Your task to perform on an android device: read, delete, or share a saved page in the chrome app Image 0: 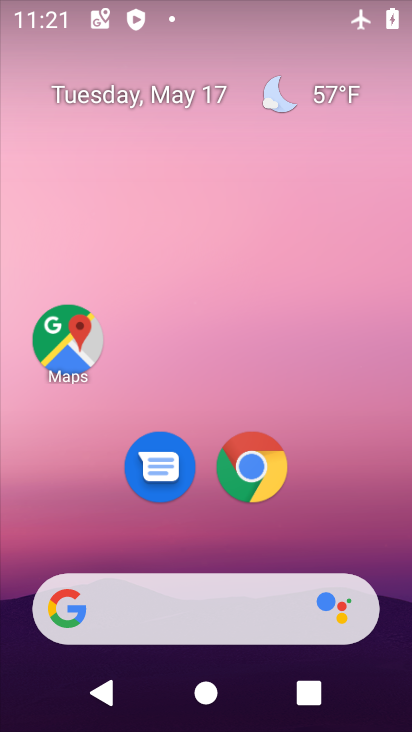
Step 0: press home button
Your task to perform on an android device: read, delete, or share a saved page in the chrome app Image 1: 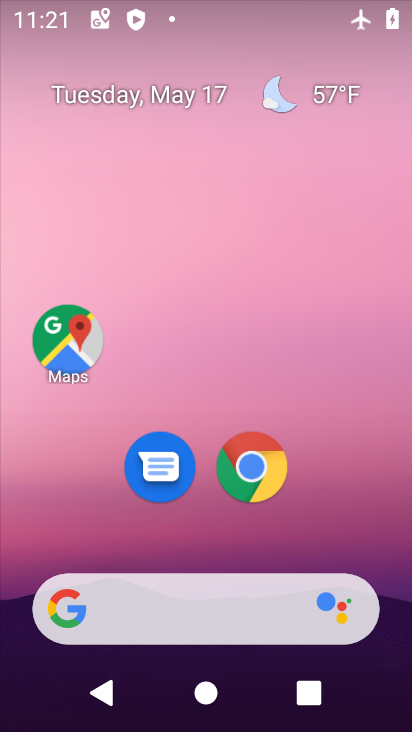
Step 1: drag from (259, 654) to (350, 173)
Your task to perform on an android device: read, delete, or share a saved page in the chrome app Image 2: 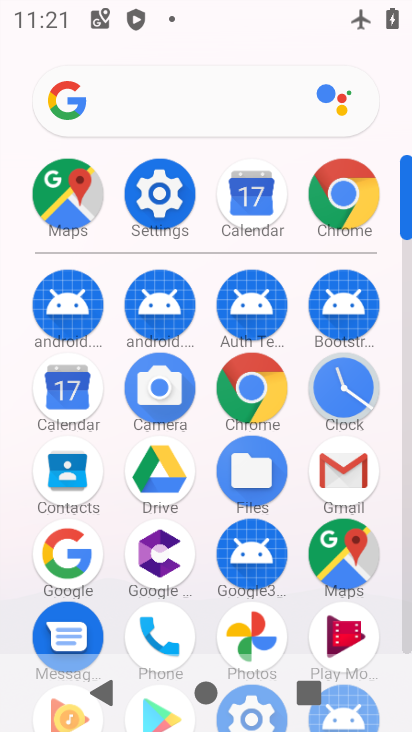
Step 2: click (365, 212)
Your task to perform on an android device: read, delete, or share a saved page in the chrome app Image 3: 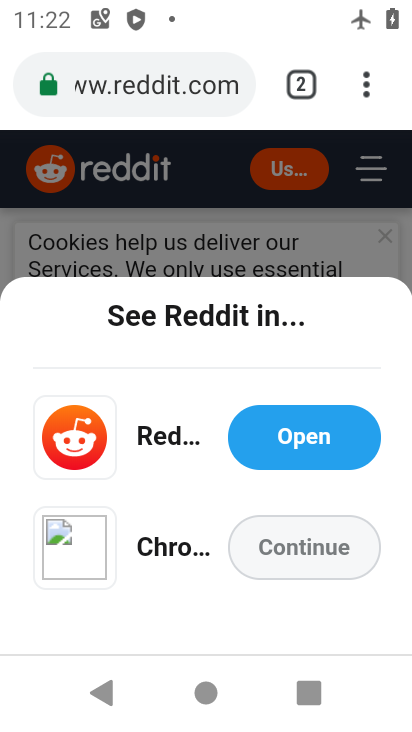
Step 3: click (240, 255)
Your task to perform on an android device: read, delete, or share a saved page in the chrome app Image 4: 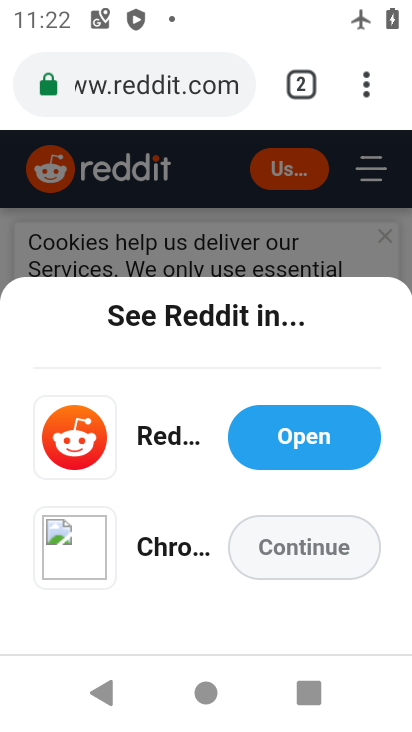
Step 4: click (355, 110)
Your task to perform on an android device: read, delete, or share a saved page in the chrome app Image 5: 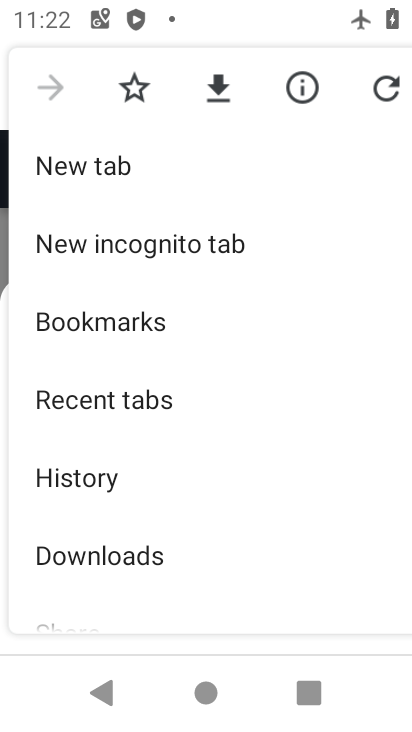
Step 5: drag from (171, 465) to (258, 185)
Your task to perform on an android device: read, delete, or share a saved page in the chrome app Image 6: 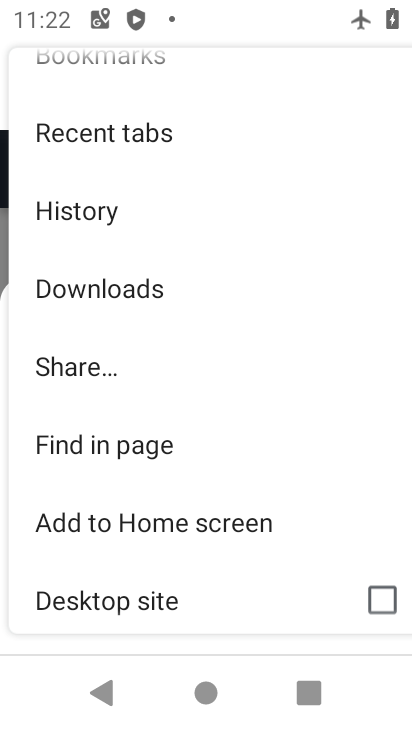
Step 6: click (94, 372)
Your task to perform on an android device: read, delete, or share a saved page in the chrome app Image 7: 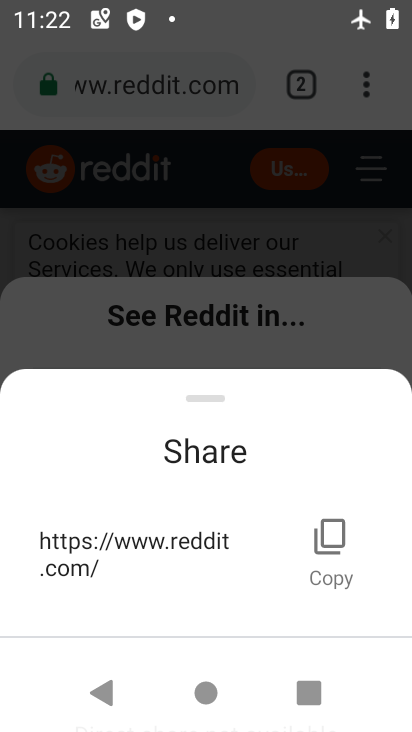
Step 7: task complete